Your task to perform on an android device: Go to Amazon Image 0: 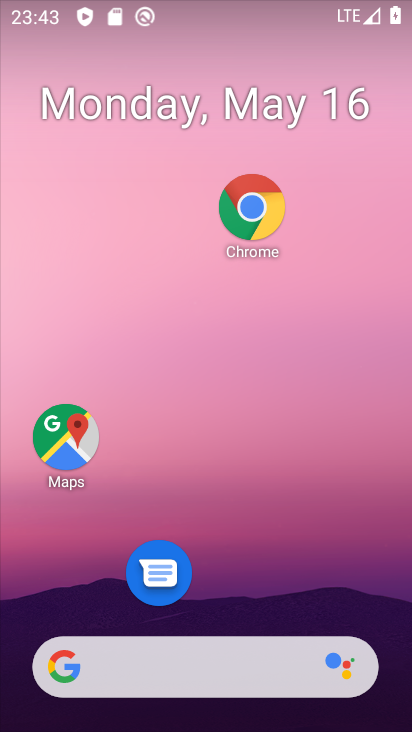
Step 0: drag from (331, 651) to (323, 6)
Your task to perform on an android device: Go to Amazon Image 1: 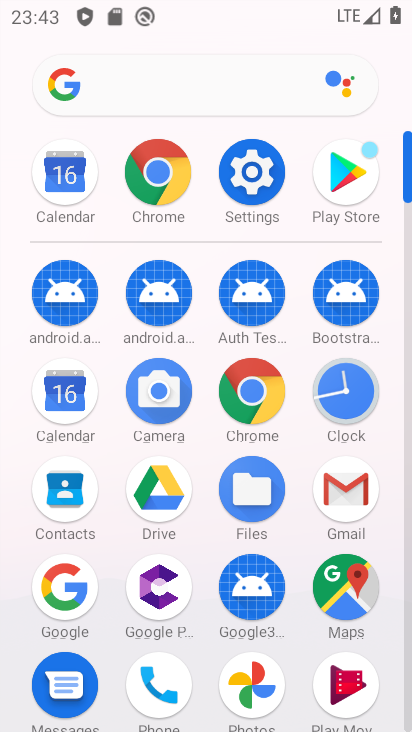
Step 1: click (250, 410)
Your task to perform on an android device: Go to Amazon Image 2: 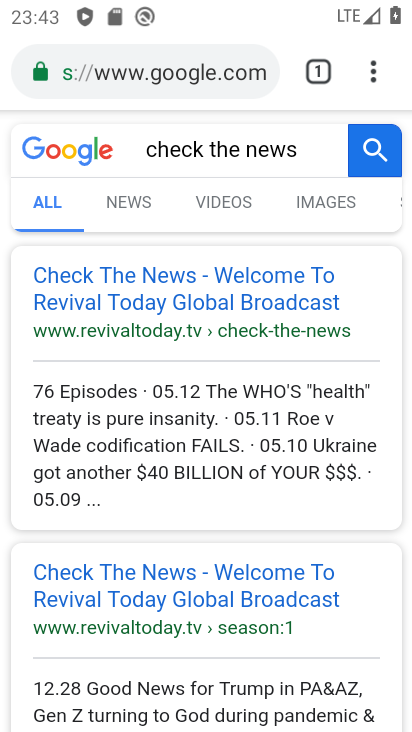
Step 2: click (237, 75)
Your task to perform on an android device: Go to Amazon Image 3: 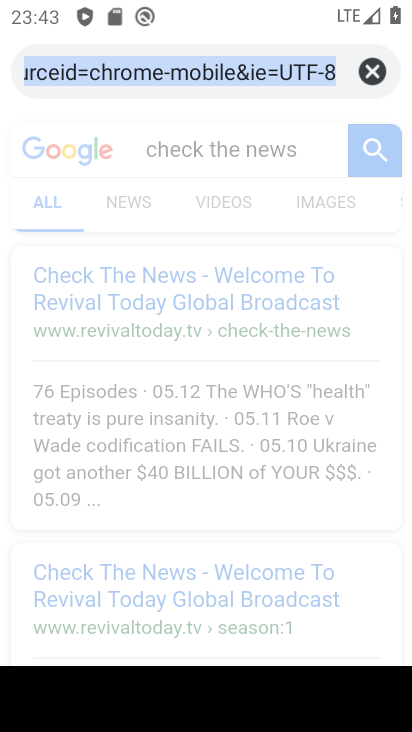
Step 3: click (376, 70)
Your task to perform on an android device: Go to Amazon Image 4: 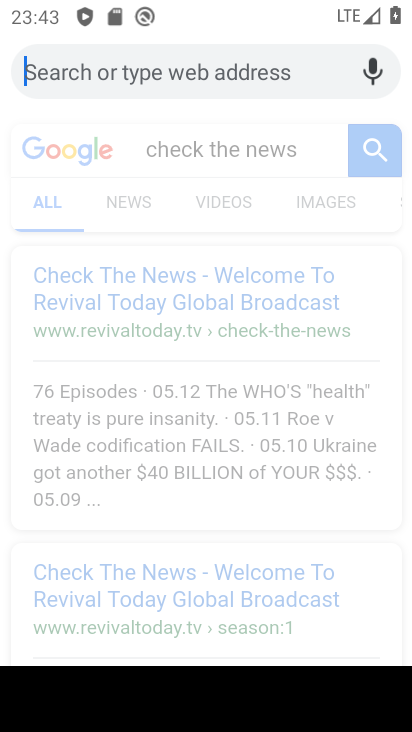
Step 4: type "amazon"
Your task to perform on an android device: Go to Amazon Image 5: 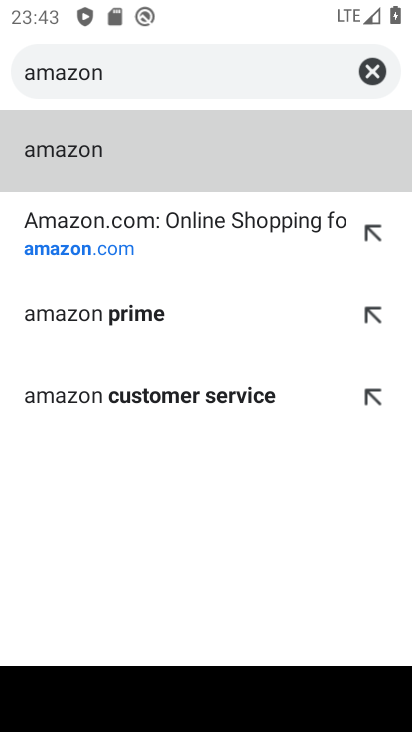
Step 5: click (175, 245)
Your task to perform on an android device: Go to Amazon Image 6: 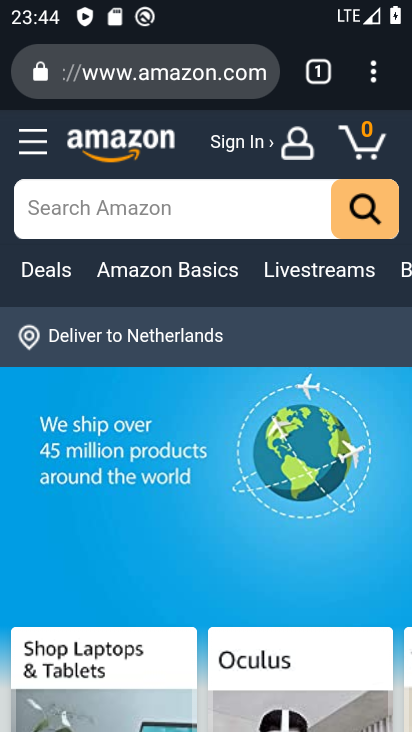
Step 6: task complete